Your task to perform on an android device: Turn off the flashlight Image 0: 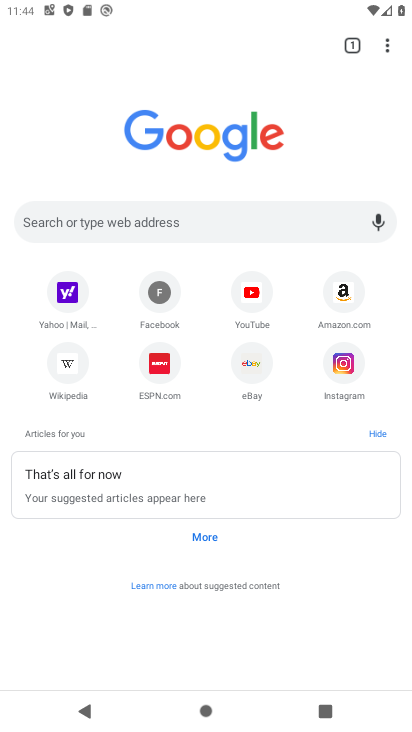
Step 0: press home button
Your task to perform on an android device: Turn off the flashlight Image 1: 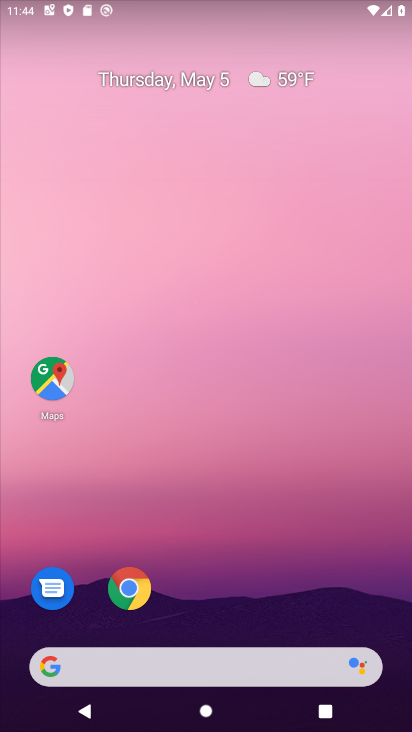
Step 1: drag from (236, 522) to (306, 13)
Your task to perform on an android device: Turn off the flashlight Image 2: 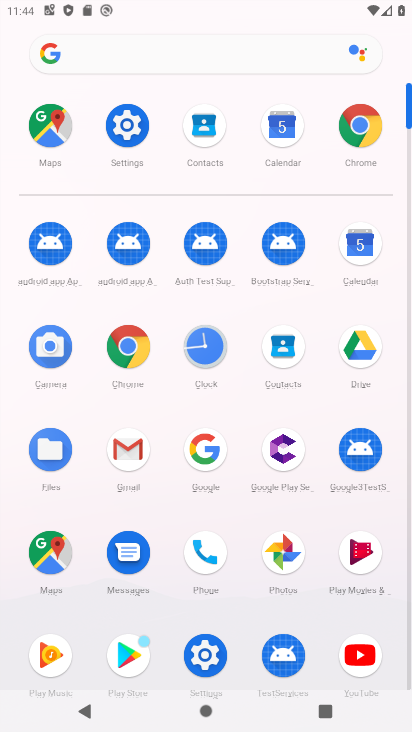
Step 2: click (120, 117)
Your task to perform on an android device: Turn off the flashlight Image 3: 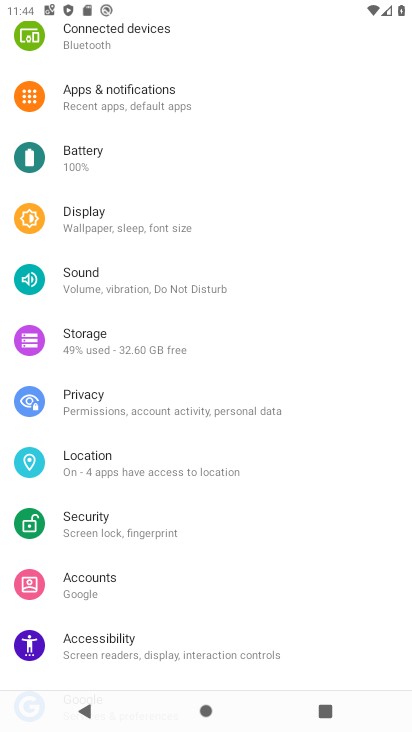
Step 3: drag from (225, 222) to (336, 601)
Your task to perform on an android device: Turn off the flashlight Image 4: 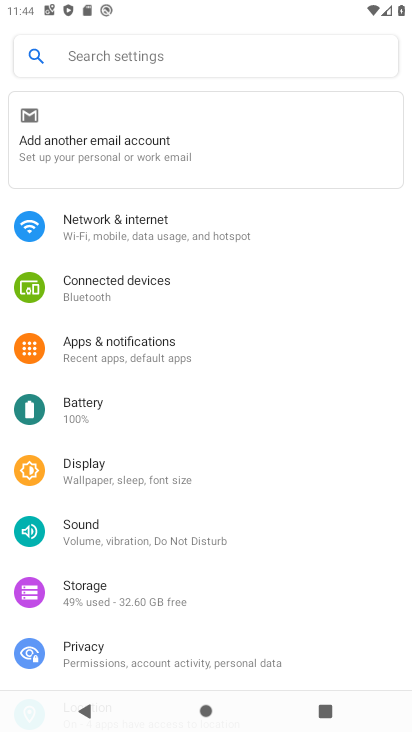
Step 4: click (217, 53)
Your task to perform on an android device: Turn off the flashlight Image 5: 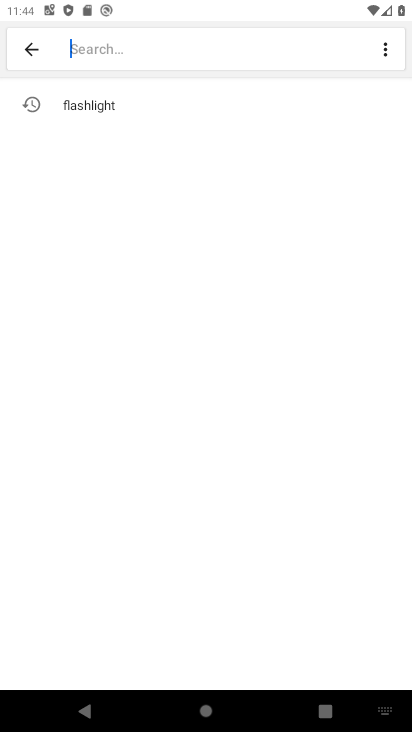
Step 5: click (98, 99)
Your task to perform on an android device: Turn off the flashlight Image 6: 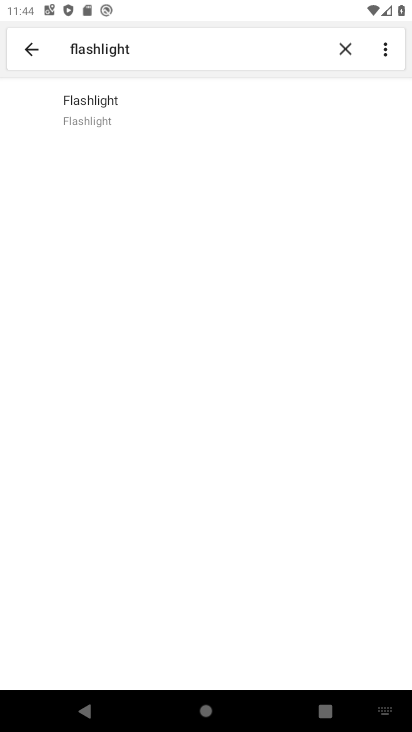
Step 6: click (94, 108)
Your task to perform on an android device: Turn off the flashlight Image 7: 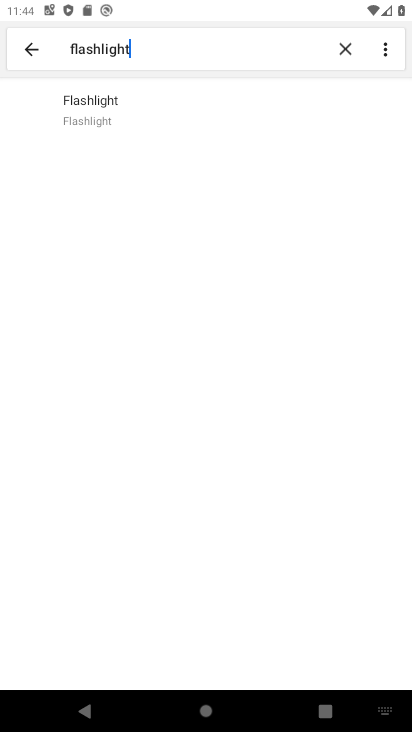
Step 7: click (85, 95)
Your task to perform on an android device: Turn off the flashlight Image 8: 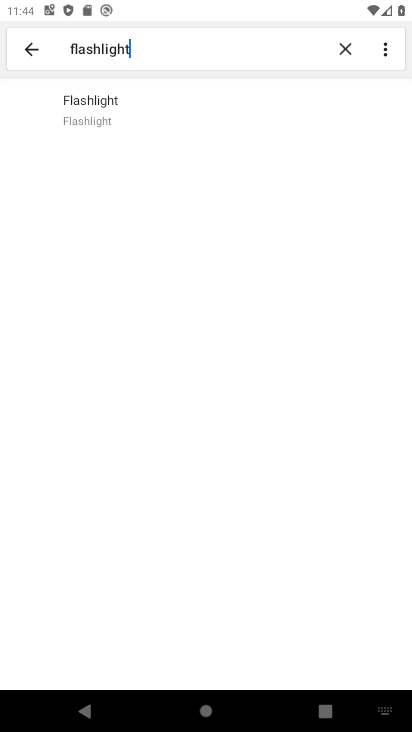
Step 8: task complete